Your task to perform on an android device: Open calendar and show me the first week of next month Image 0: 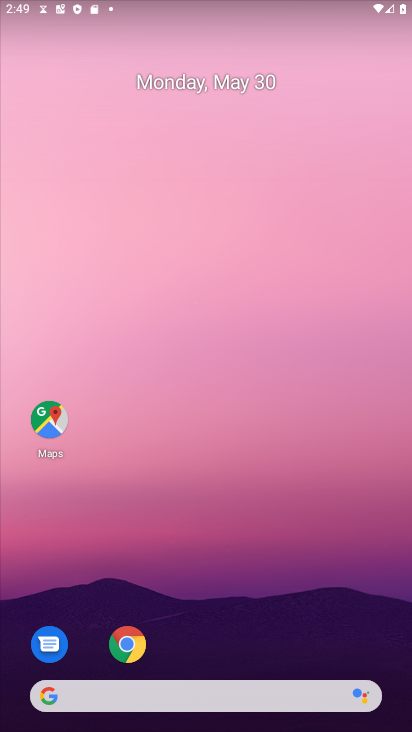
Step 0: drag from (344, 637) to (256, 44)
Your task to perform on an android device: Open calendar and show me the first week of next month Image 1: 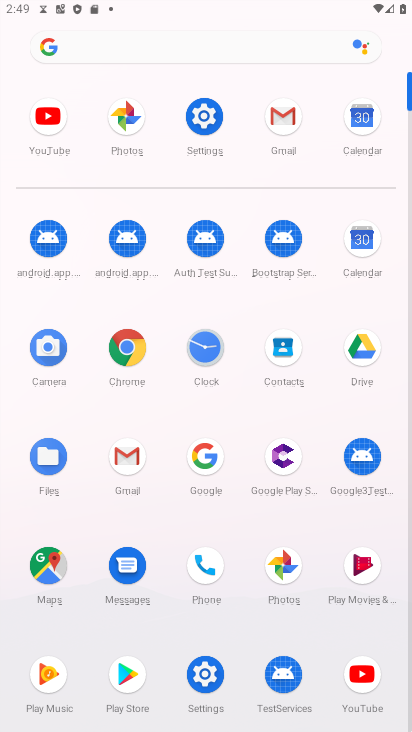
Step 1: click (357, 121)
Your task to perform on an android device: Open calendar and show me the first week of next month Image 2: 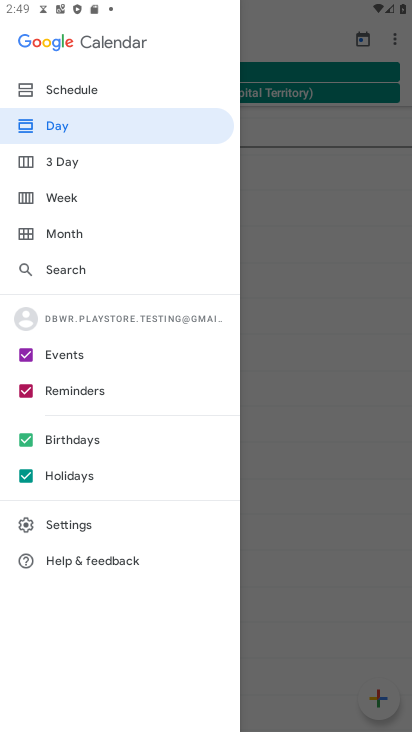
Step 2: click (57, 195)
Your task to perform on an android device: Open calendar and show me the first week of next month Image 3: 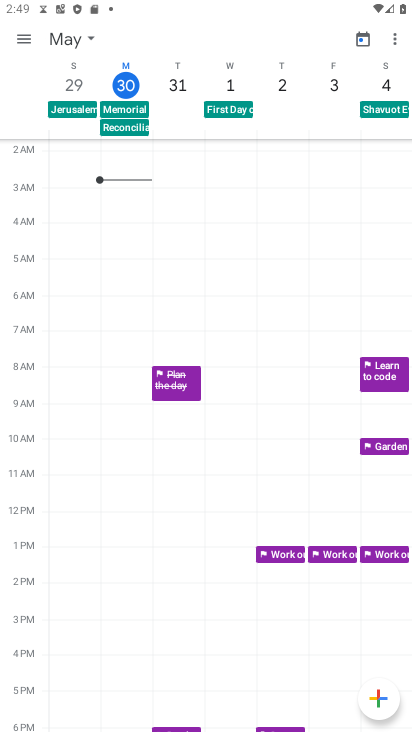
Step 3: task complete